Your task to perform on an android device: turn off location Image 0: 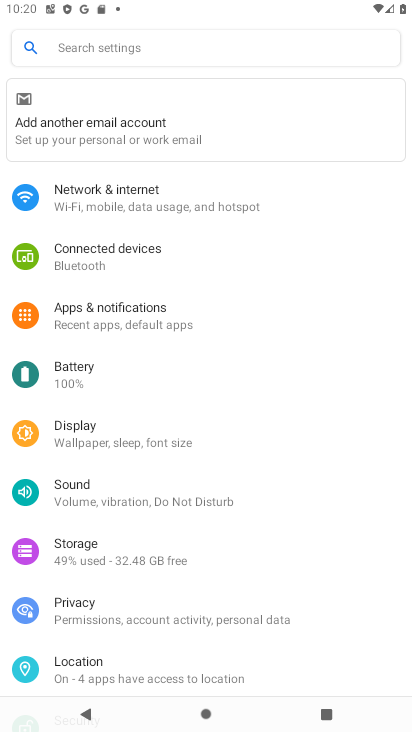
Step 0: press home button
Your task to perform on an android device: turn off location Image 1: 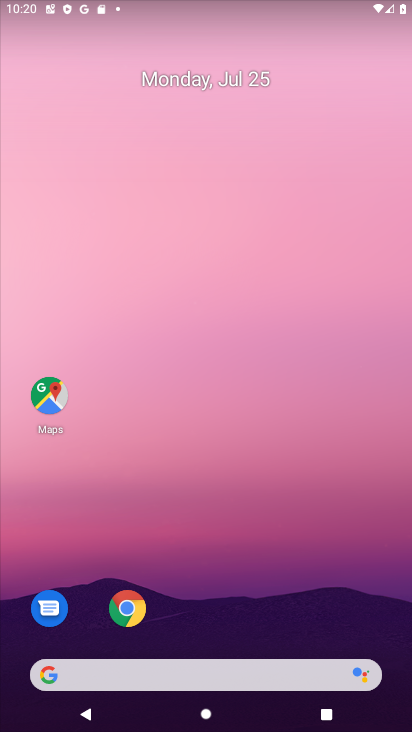
Step 1: drag from (187, 662) to (216, 208)
Your task to perform on an android device: turn off location Image 2: 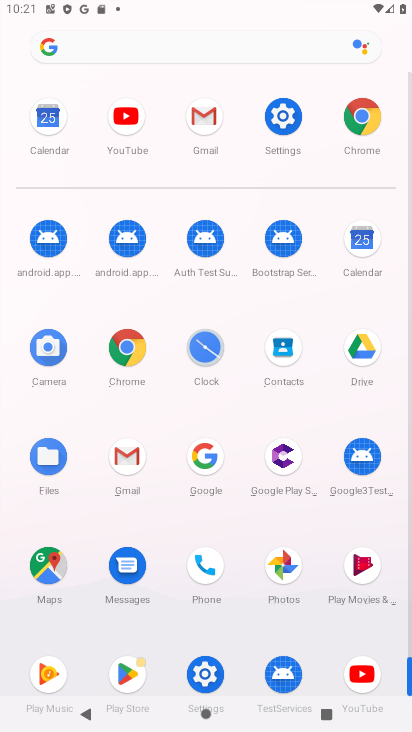
Step 2: click (292, 111)
Your task to perform on an android device: turn off location Image 3: 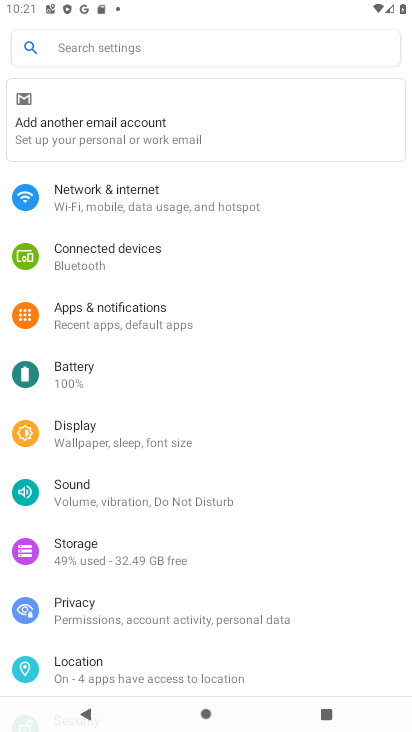
Step 3: click (93, 664)
Your task to perform on an android device: turn off location Image 4: 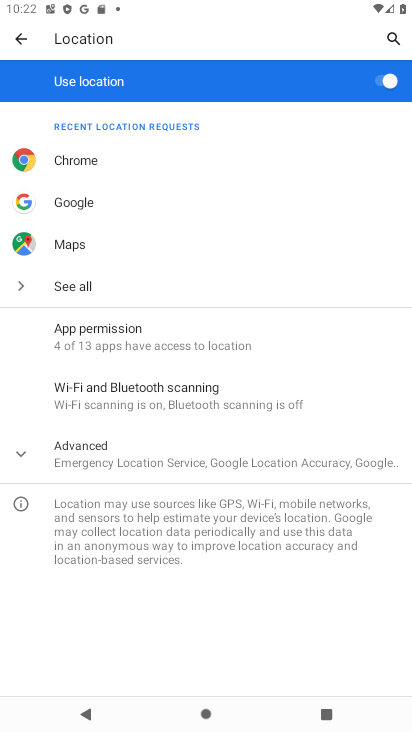
Step 4: click (342, 72)
Your task to perform on an android device: turn off location Image 5: 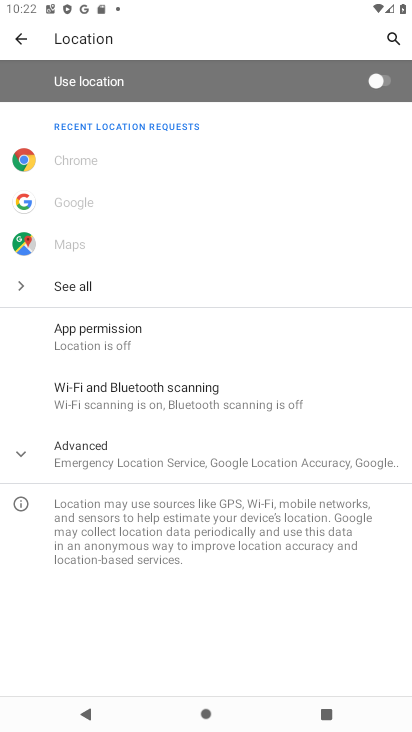
Step 5: task complete